Your task to perform on an android device: Open Google Maps and go to "Timeline" Image 0: 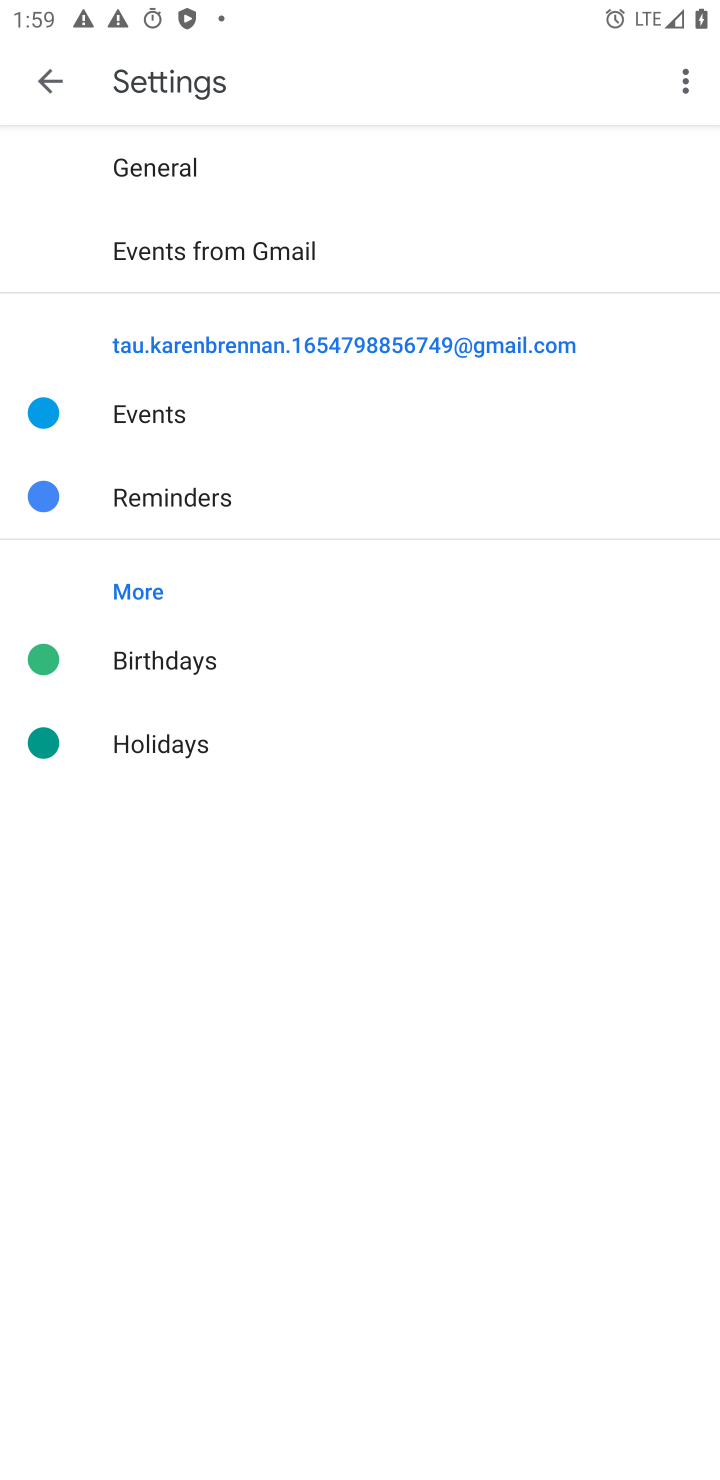
Step 0: press home button
Your task to perform on an android device: Open Google Maps and go to "Timeline" Image 1: 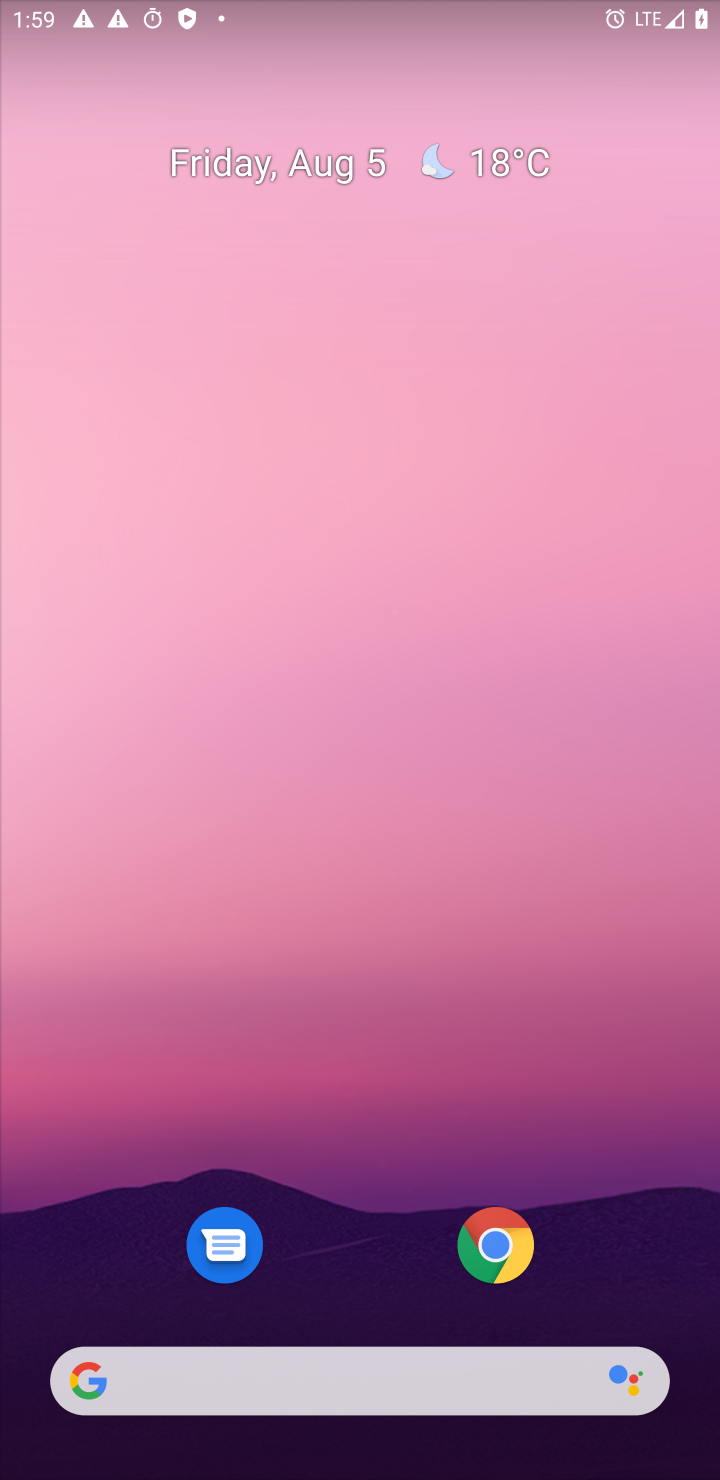
Step 1: drag from (418, 1060) to (484, 343)
Your task to perform on an android device: Open Google Maps and go to "Timeline" Image 2: 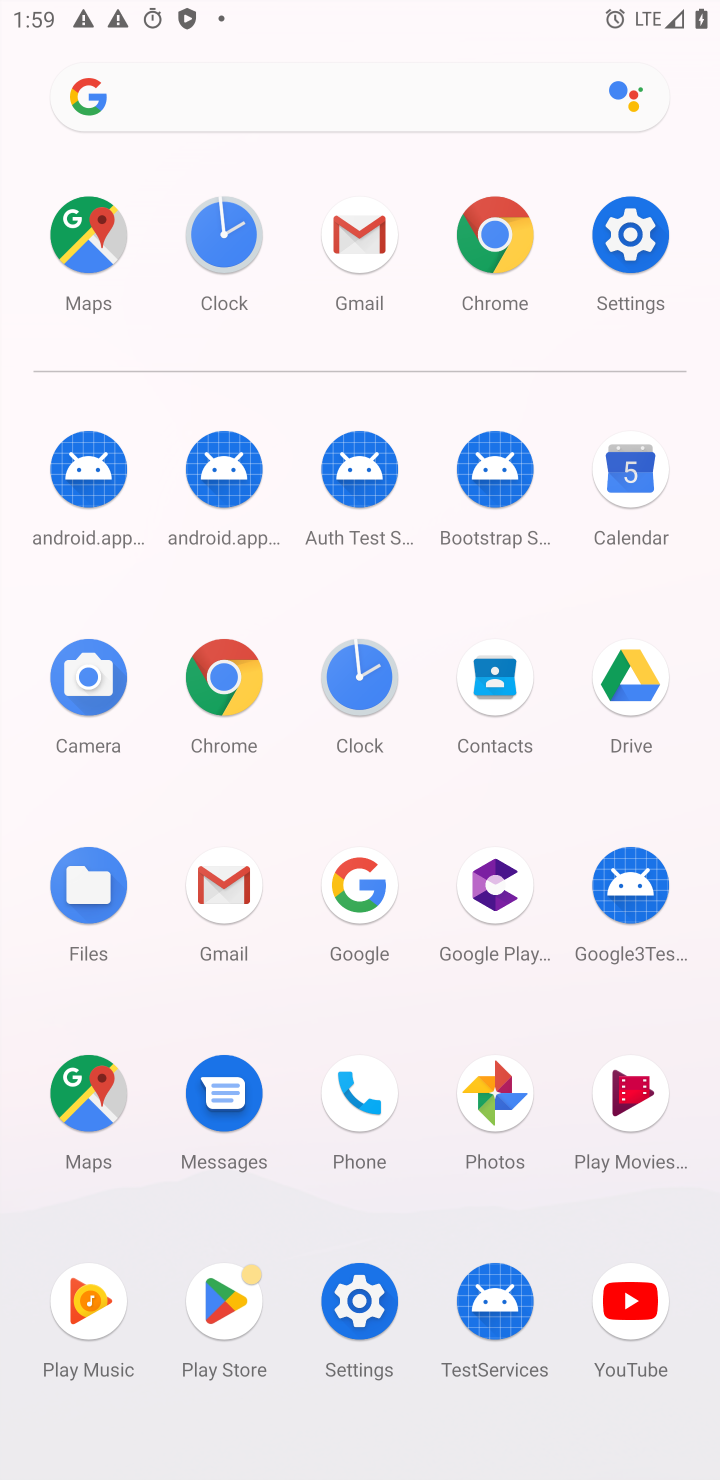
Step 2: click (76, 252)
Your task to perform on an android device: Open Google Maps and go to "Timeline" Image 3: 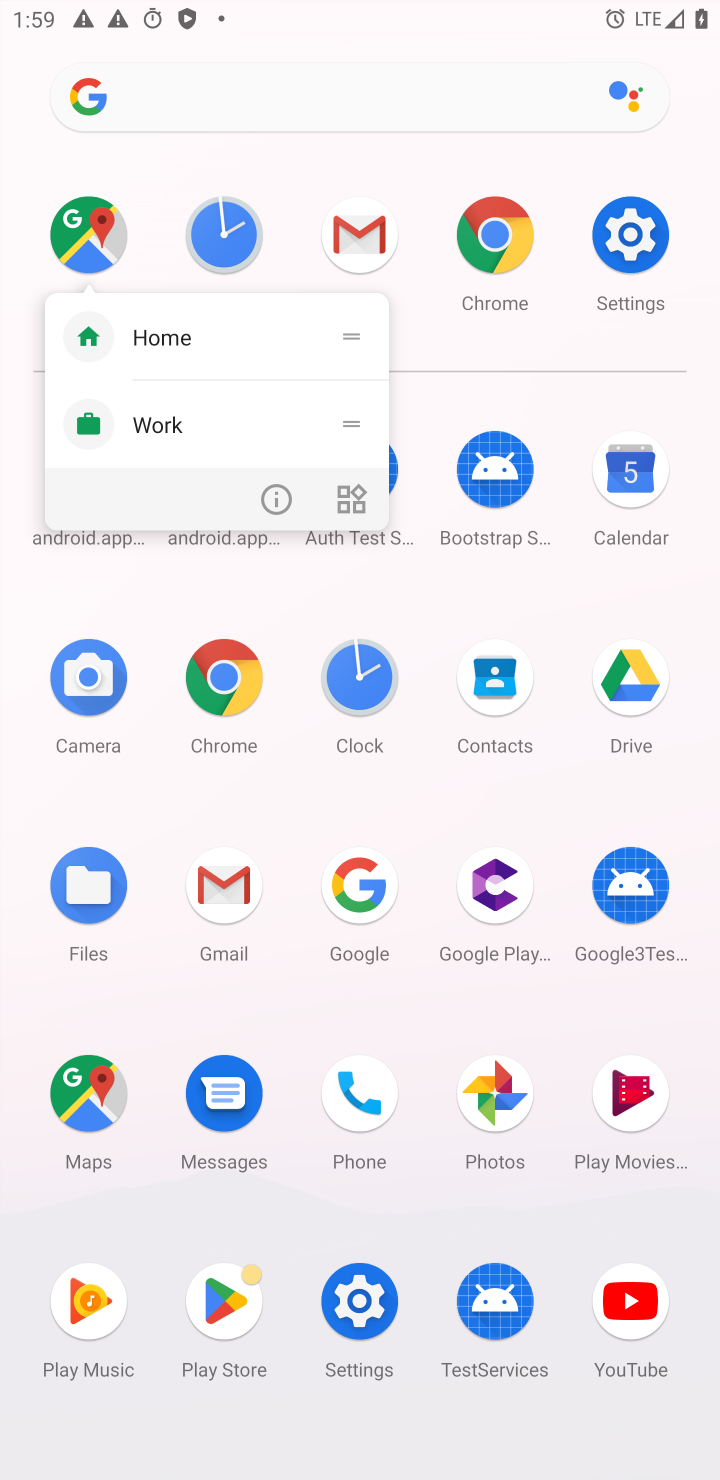
Step 3: click (76, 248)
Your task to perform on an android device: Open Google Maps and go to "Timeline" Image 4: 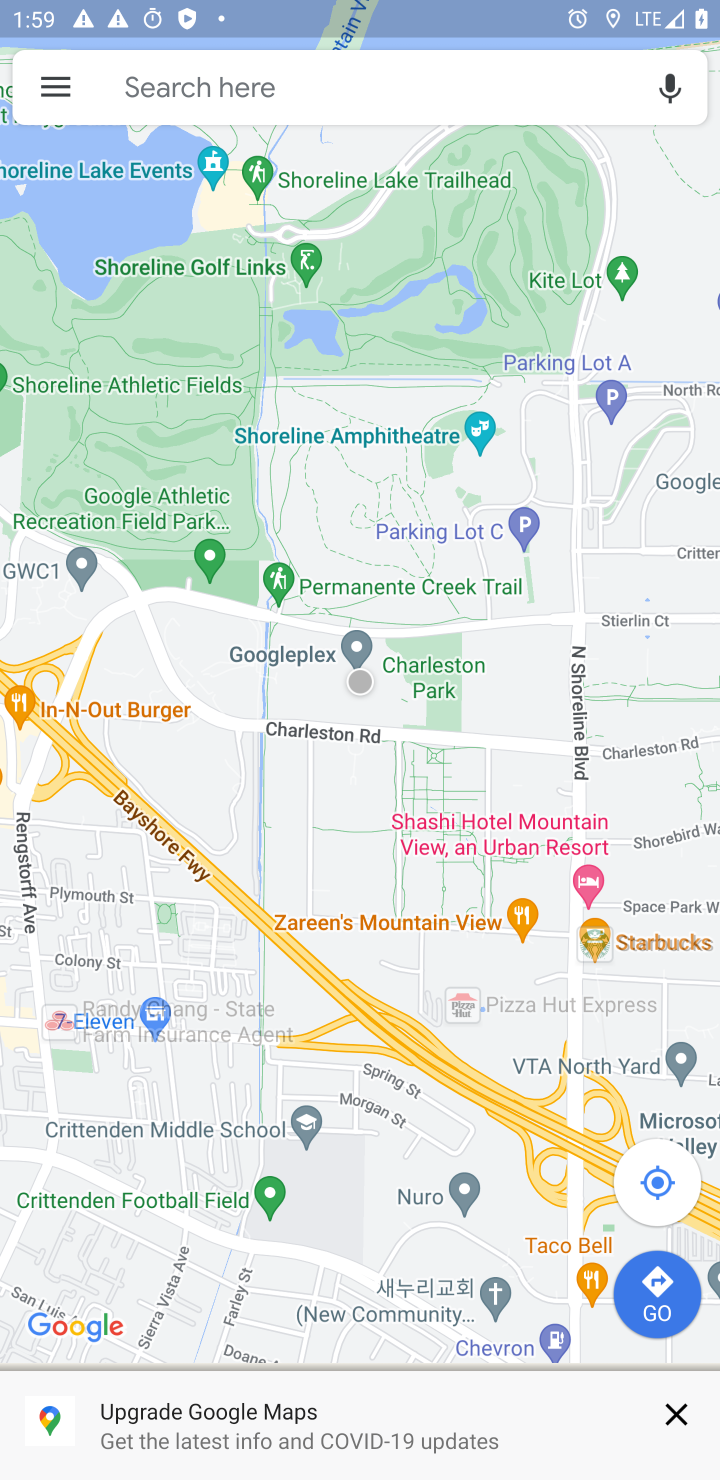
Step 4: click (61, 79)
Your task to perform on an android device: Open Google Maps and go to "Timeline" Image 5: 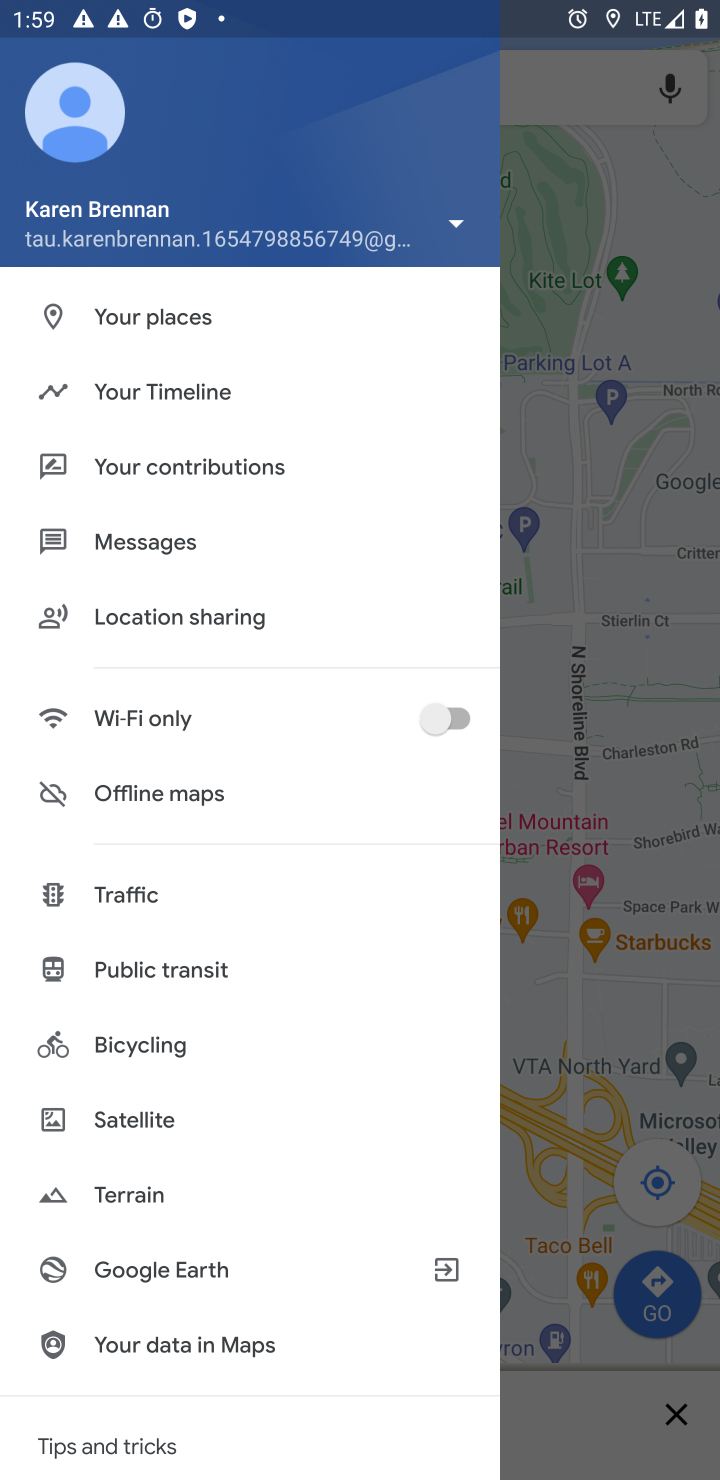
Step 5: click (175, 378)
Your task to perform on an android device: Open Google Maps and go to "Timeline" Image 6: 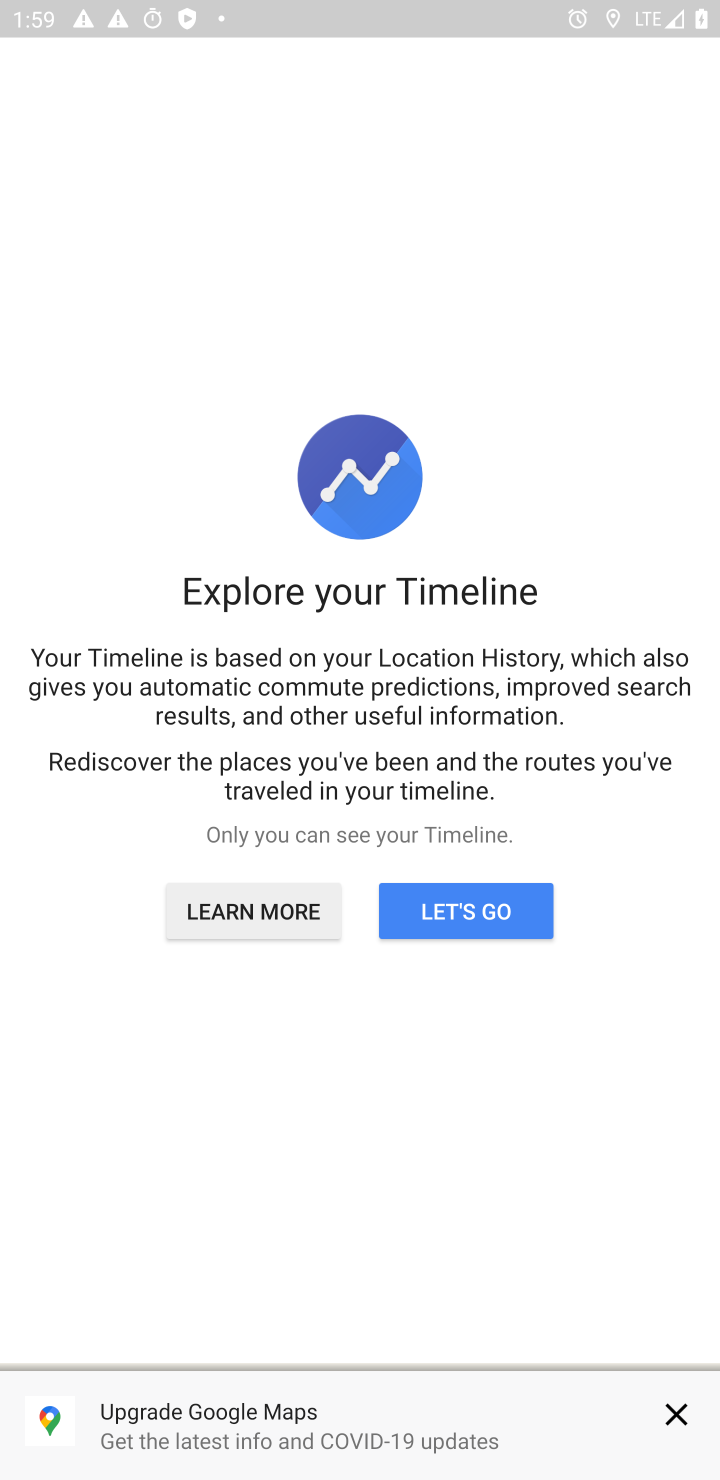
Step 6: click (417, 899)
Your task to perform on an android device: Open Google Maps and go to "Timeline" Image 7: 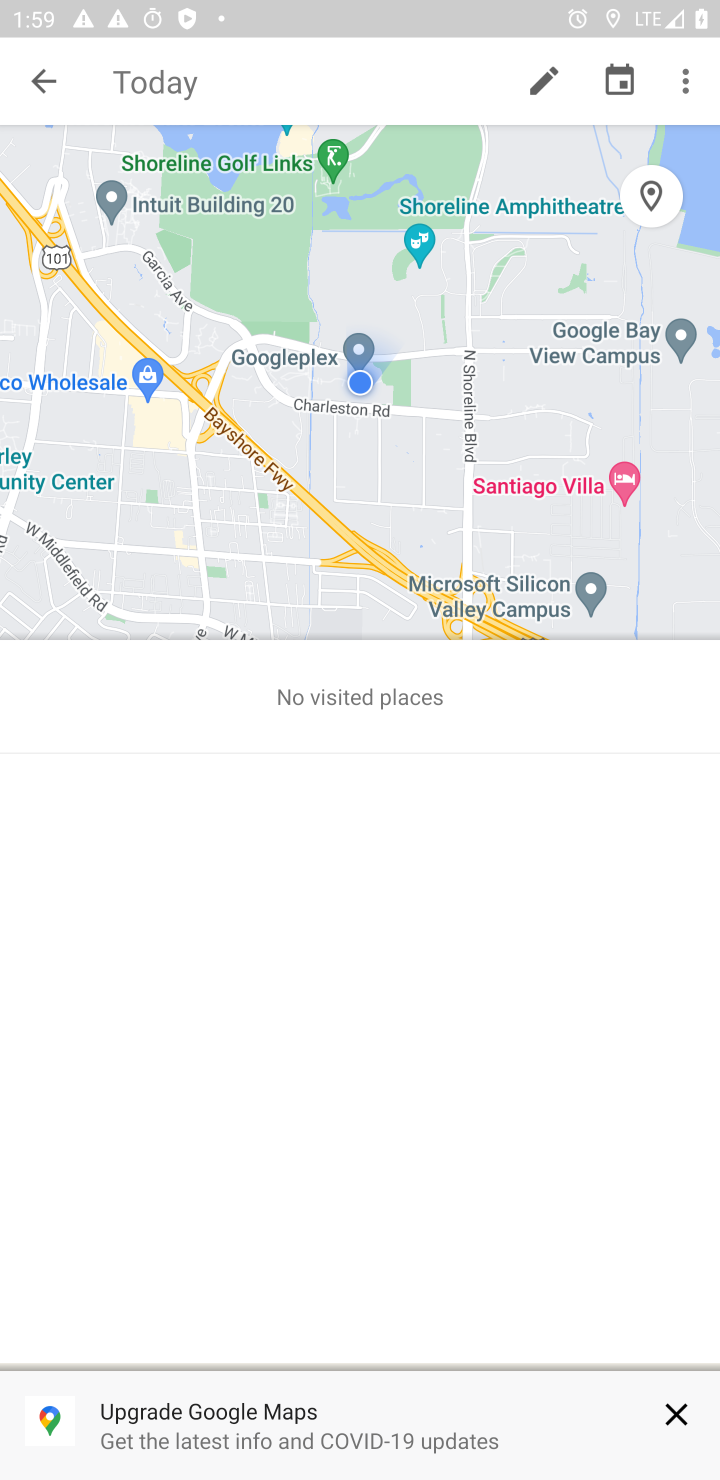
Step 7: task complete